Your task to perform on an android device: Go to wifi settings Image 0: 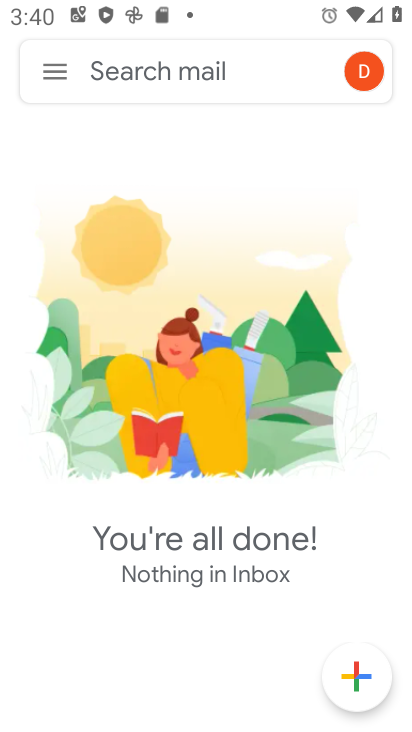
Step 0: press home button
Your task to perform on an android device: Go to wifi settings Image 1: 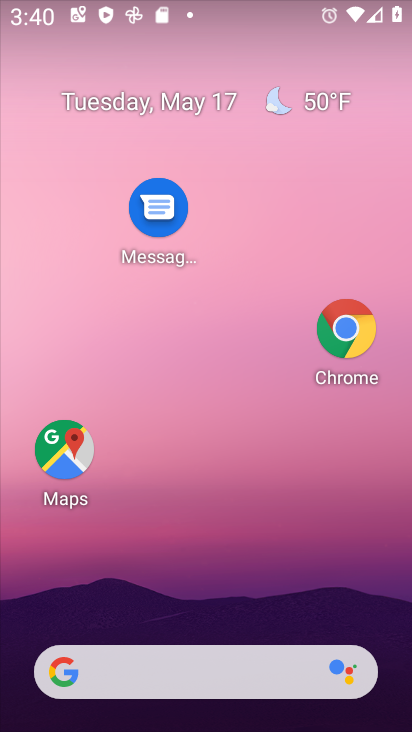
Step 1: drag from (252, 536) to (266, 215)
Your task to perform on an android device: Go to wifi settings Image 2: 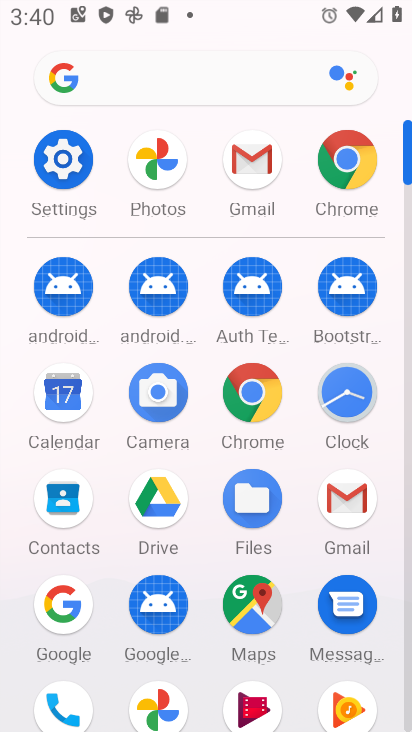
Step 2: click (70, 167)
Your task to perform on an android device: Go to wifi settings Image 3: 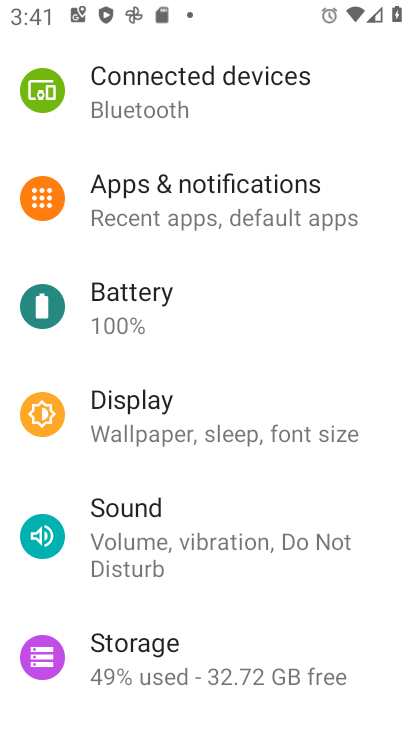
Step 3: drag from (154, 585) to (207, 220)
Your task to perform on an android device: Go to wifi settings Image 4: 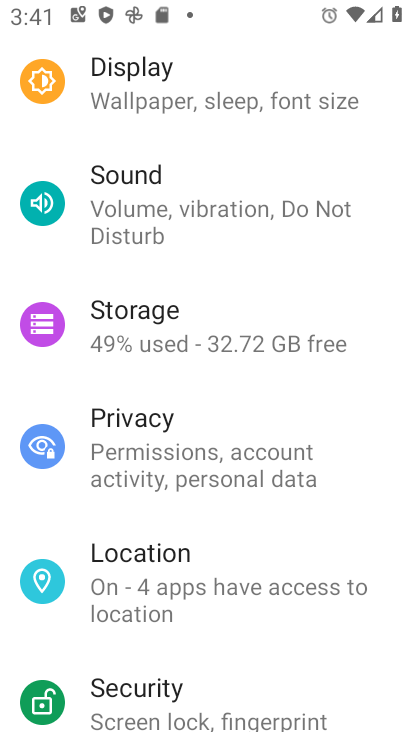
Step 4: drag from (207, 220) to (335, 618)
Your task to perform on an android device: Go to wifi settings Image 5: 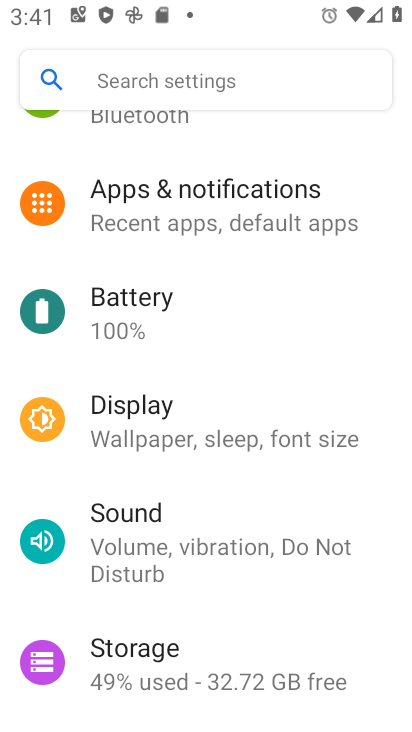
Step 5: drag from (243, 219) to (174, 730)
Your task to perform on an android device: Go to wifi settings Image 6: 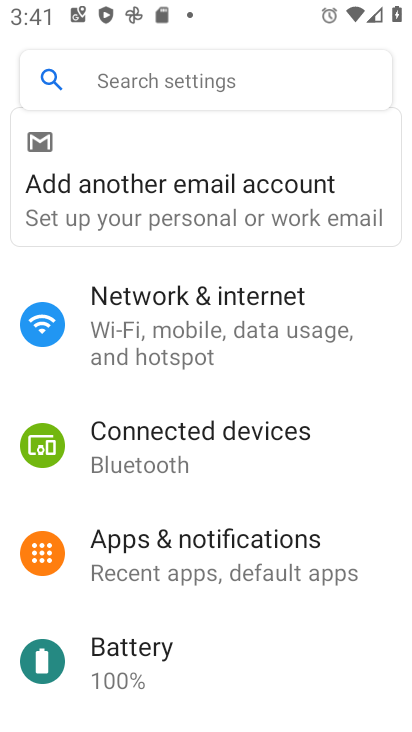
Step 6: click (272, 325)
Your task to perform on an android device: Go to wifi settings Image 7: 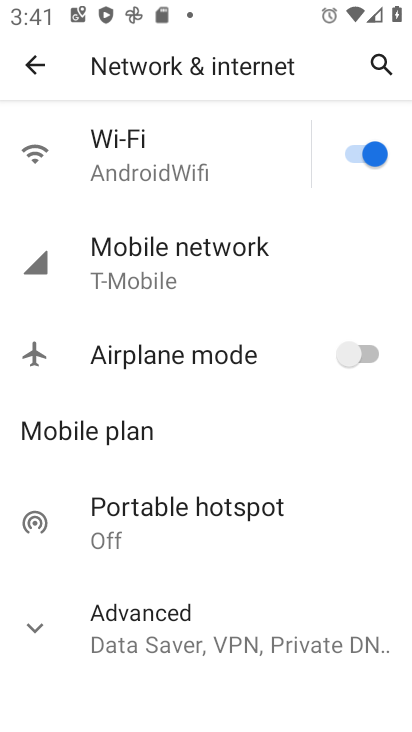
Step 7: task complete